Your task to perform on an android device: Find coffee shops on Maps Image 0: 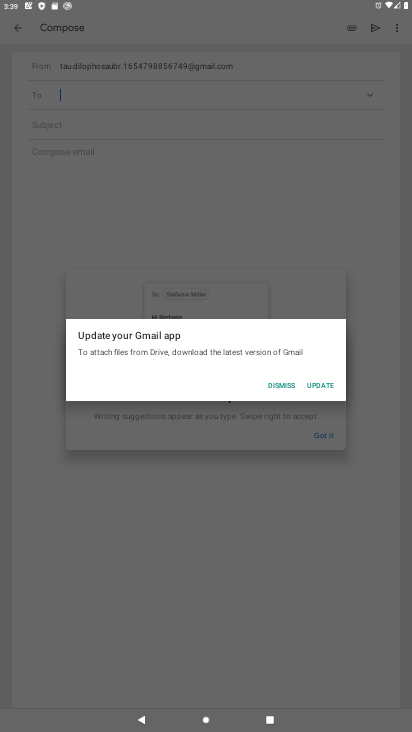
Step 0: press home button
Your task to perform on an android device: Find coffee shops on Maps Image 1: 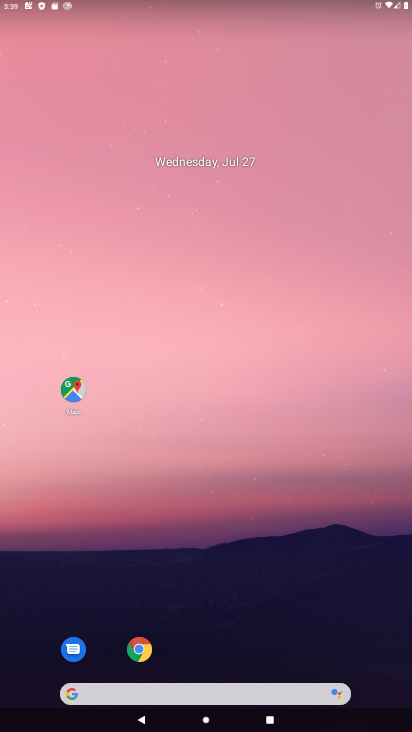
Step 1: click (74, 390)
Your task to perform on an android device: Find coffee shops on Maps Image 2: 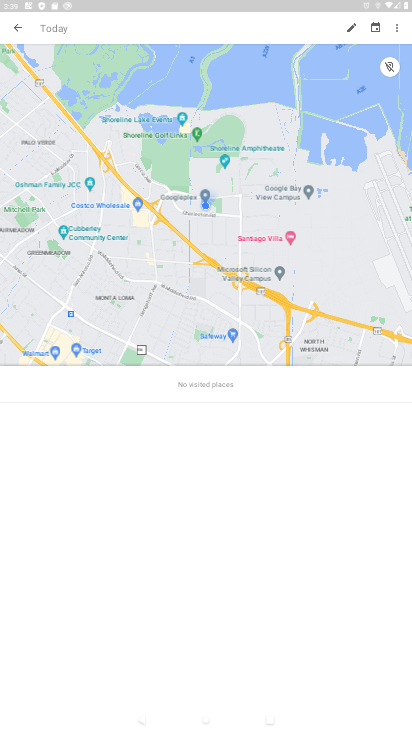
Step 2: press back button
Your task to perform on an android device: Find coffee shops on Maps Image 3: 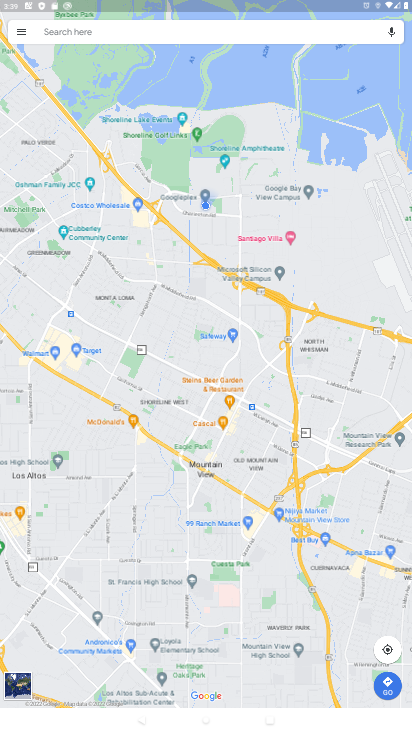
Step 3: click (137, 35)
Your task to perform on an android device: Find coffee shops on Maps Image 4: 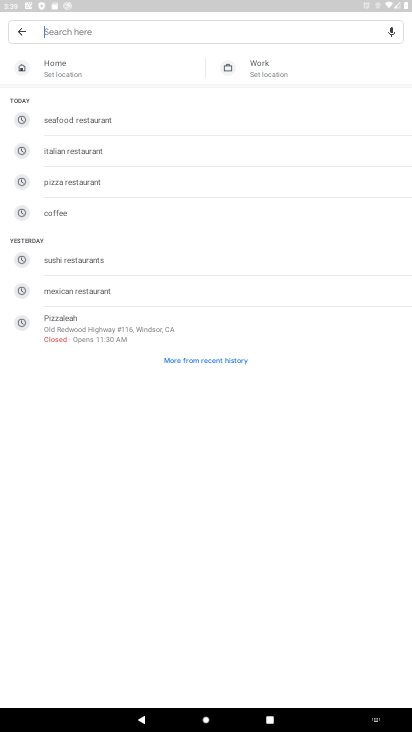
Step 4: type "coffee shops"
Your task to perform on an android device: Find coffee shops on Maps Image 5: 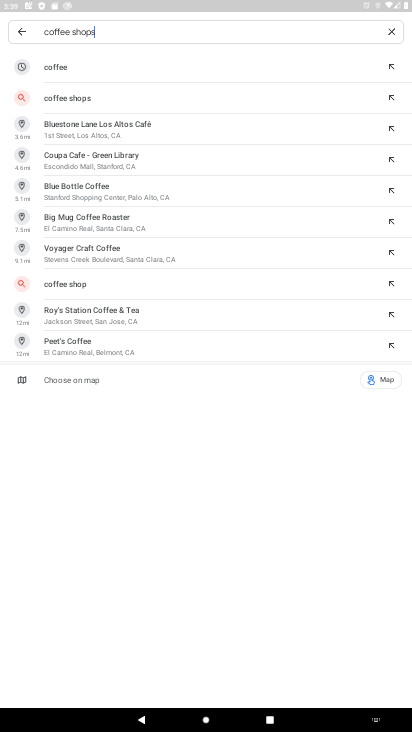
Step 5: click (75, 94)
Your task to perform on an android device: Find coffee shops on Maps Image 6: 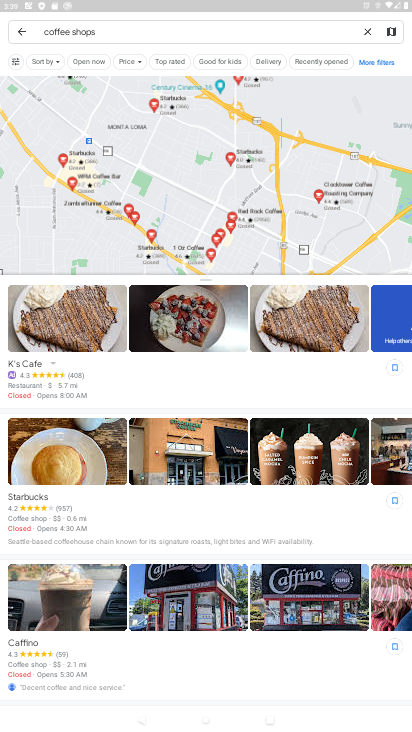
Step 6: task complete